Your task to perform on an android device: turn notification dots off Image 0: 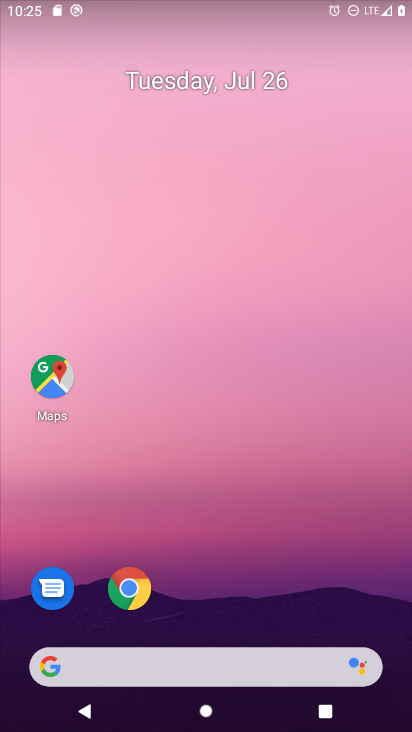
Step 0: drag from (248, 636) to (306, 12)
Your task to perform on an android device: turn notification dots off Image 1: 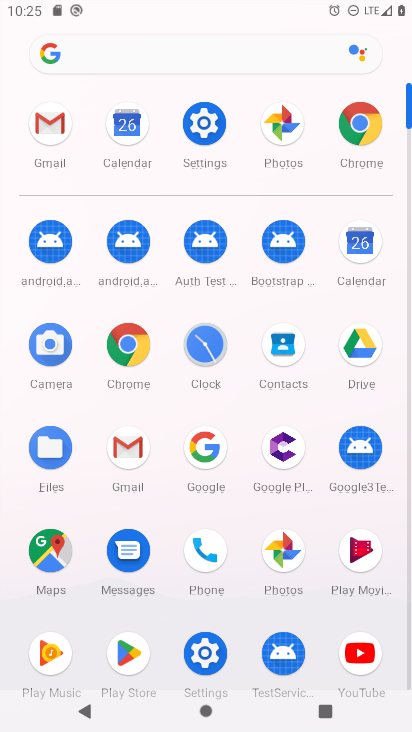
Step 1: click (221, 147)
Your task to perform on an android device: turn notification dots off Image 2: 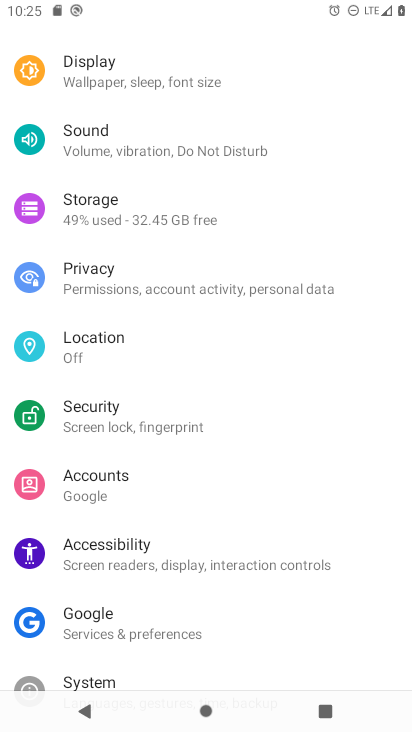
Step 2: drag from (140, 522) to (134, 703)
Your task to perform on an android device: turn notification dots off Image 3: 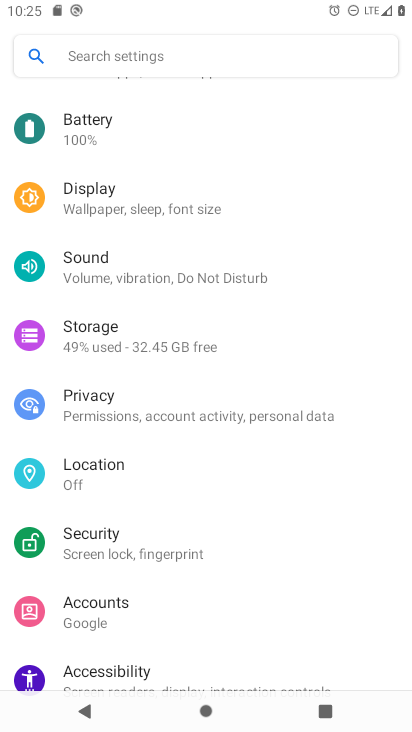
Step 3: drag from (165, 369) to (150, 479)
Your task to perform on an android device: turn notification dots off Image 4: 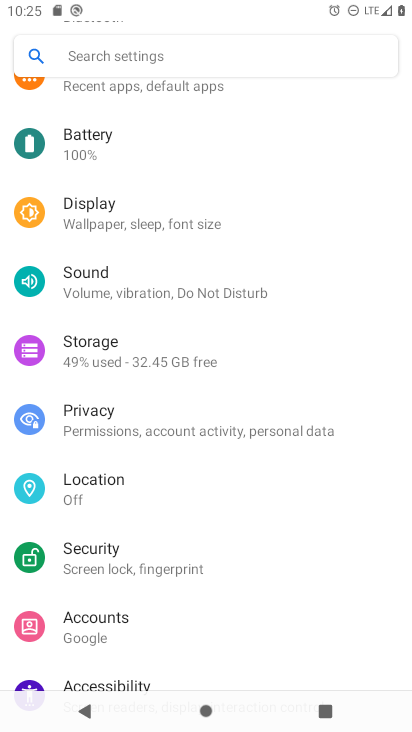
Step 4: drag from (129, 230) to (134, 608)
Your task to perform on an android device: turn notification dots off Image 5: 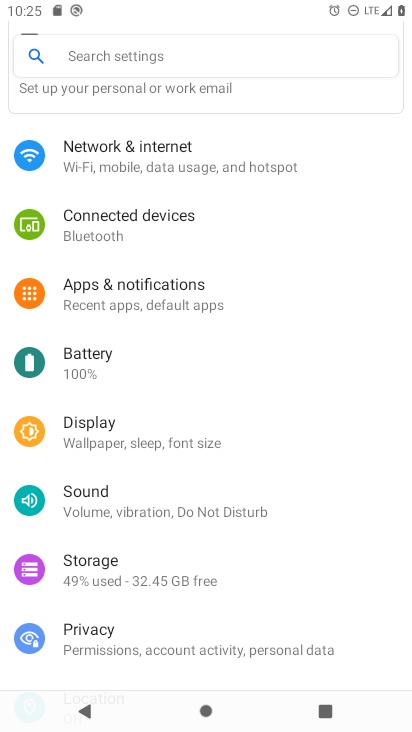
Step 5: click (165, 303)
Your task to perform on an android device: turn notification dots off Image 6: 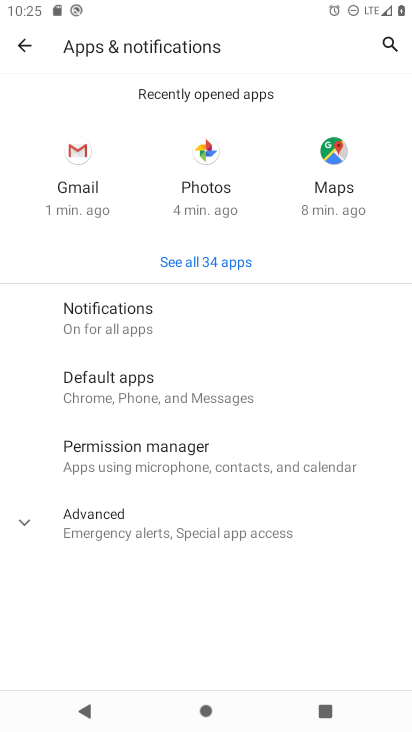
Step 6: click (168, 331)
Your task to perform on an android device: turn notification dots off Image 7: 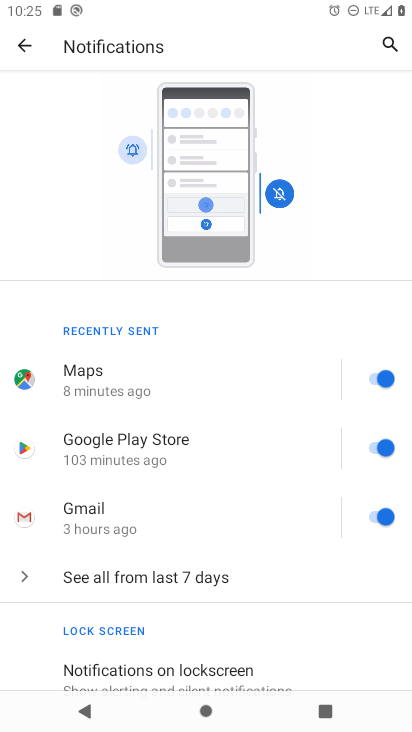
Step 7: drag from (161, 543) to (225, 136)
Your task to perform on an android device: turn notification dots off Image 8: 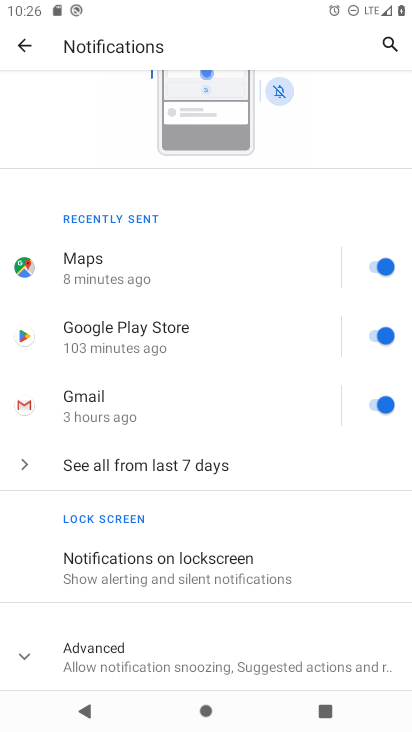
Step 8: click (155, 660)
Your task to perform on an android device: turn notification dots off Image 9: 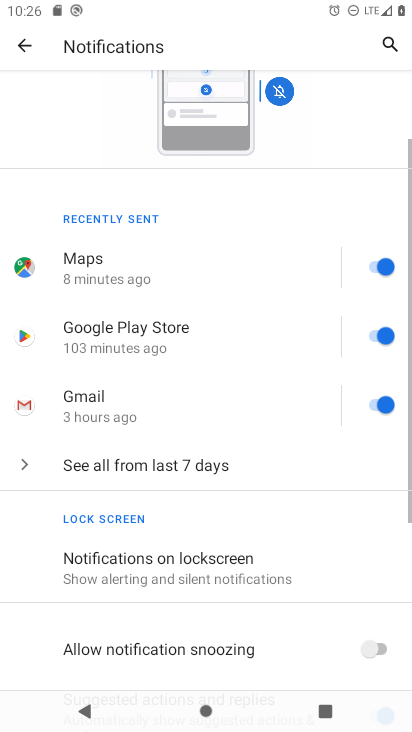
Step 9: task complete